Your task to perform on an android device: Go to Amazon Image 0: 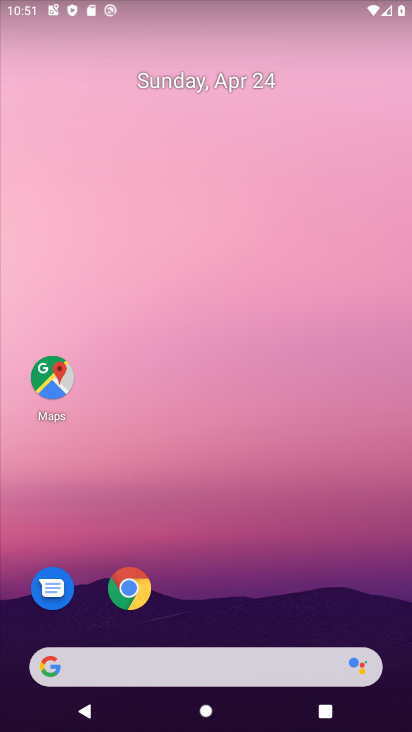
Step 0: click (128, 578)
Your task to perform on an android device: Go to Amazon Image 1: 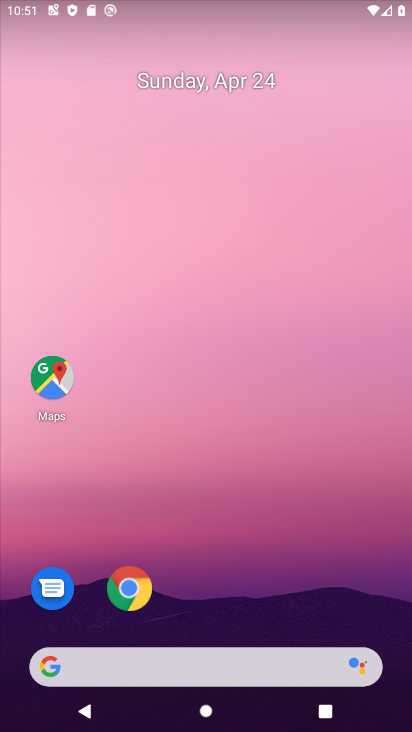
Step 1: click (128, 584)
Your task to perform on an android device: Go to Amazon Image 2: 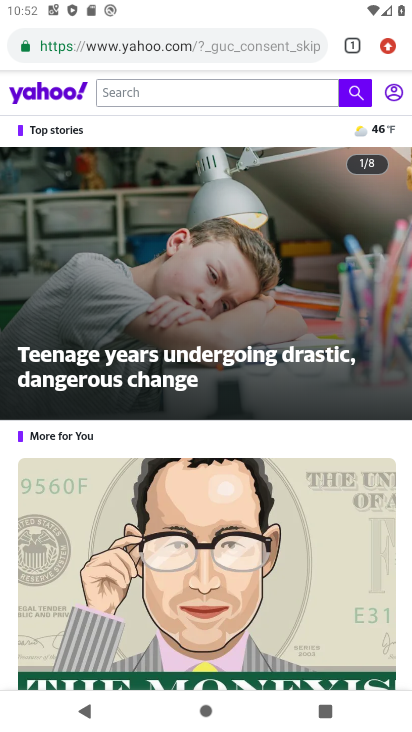
Step 2: click (354, 44)
Your task to perform on an android device: Go to Amazon Image 3: 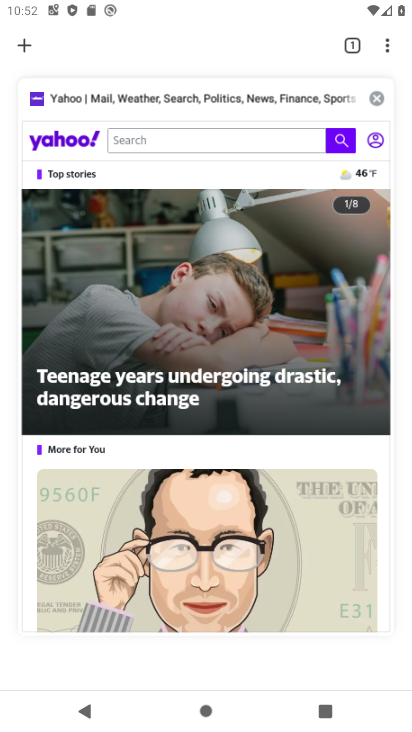
Step 3: click (28, 44)
Your task to perform on an android device: Go to Amazon Image 4: 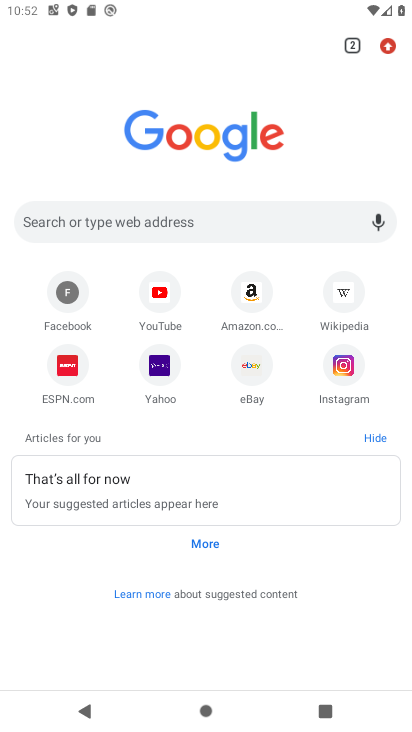
Step 4: click (252, 289)
Your task to perform on an android device: Go to Amazon Image 5: 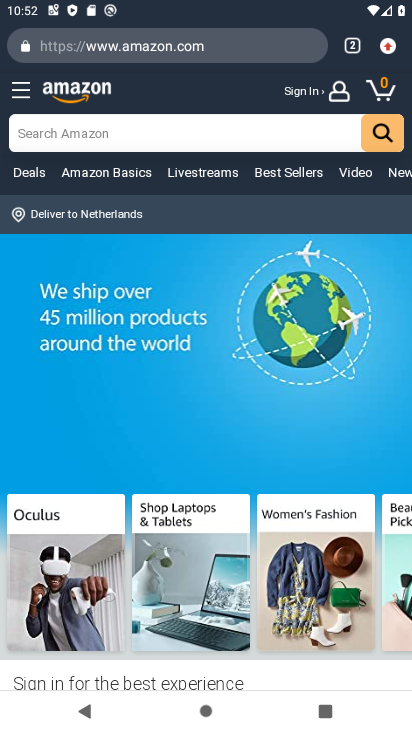
Step 5: task complete